Your task to perform on an android device: Show me popular games on the Play Store Image 0: 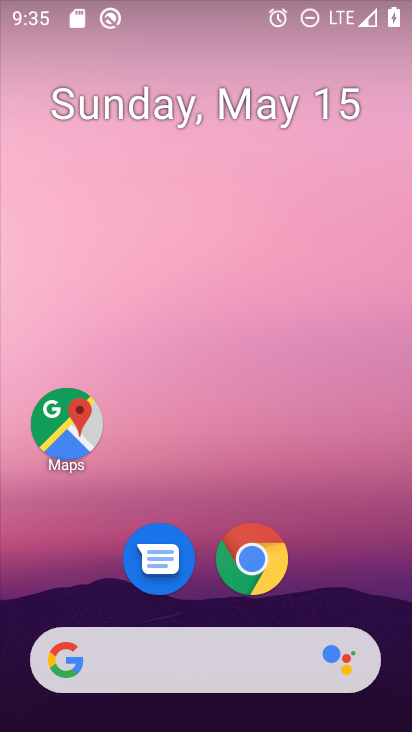
Step 0: drag from (323, 573) to (334, 115)
Your task to perform on an android device: Show me popular games on the Play Store Image 1: 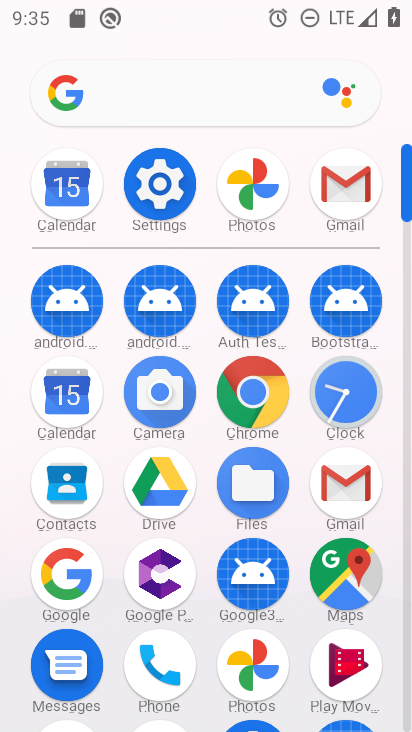
Step 1: click (406, 715)
Your task to perform on an android device: Show me popular games on the Play Store Image 2: 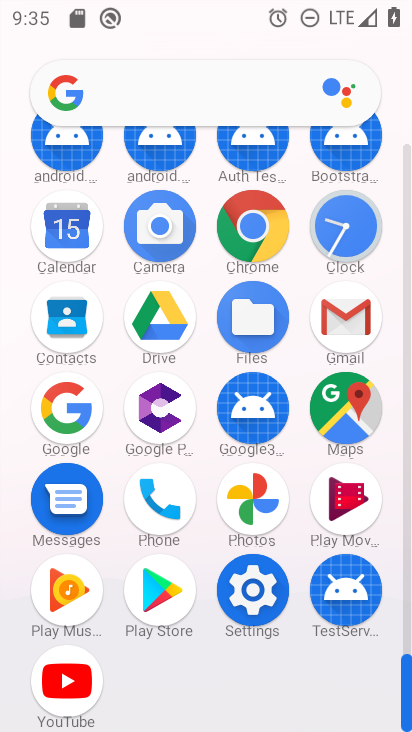
Step 2: click (161, 585)
Your task to perform on an android device: Show me popular games on the Play Store Image 3: 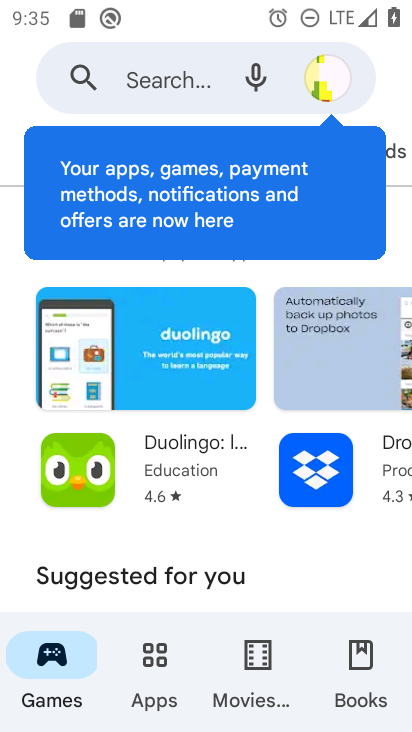
Step 3: click (165, 74)
Your task to perform on an android device: Show me popular games on the Play Store Image 4: 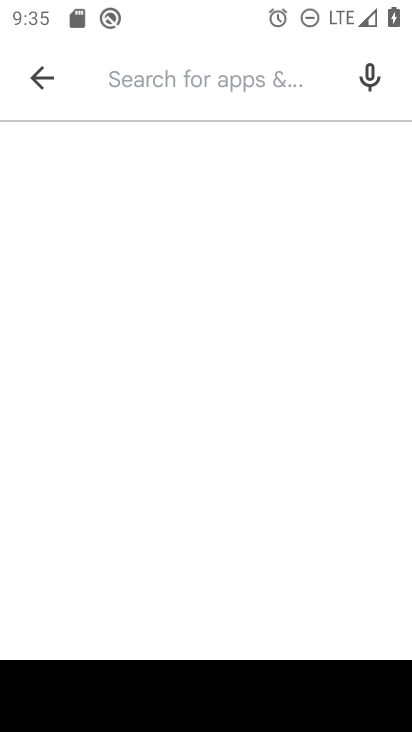
Step 4: click (41, 90)
Your task to perform on an android device: Show me popular games on the Play Store Image 5: 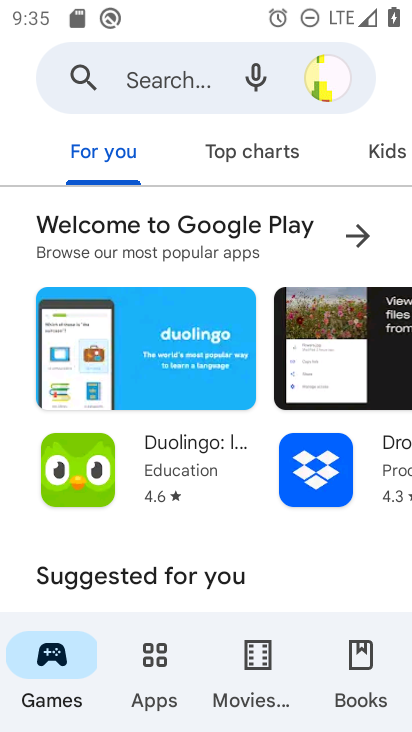
Step 5: click (224, 172)
Your task to perform on an android device: Show me popular games on the Play Store Image 6: 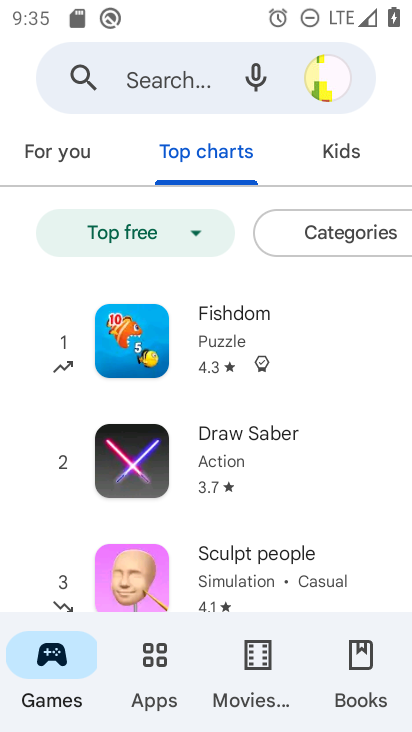
Step 6: click (198, 240)
Your task to perform on an android device: Show me popular games on the Play Store Image 7: 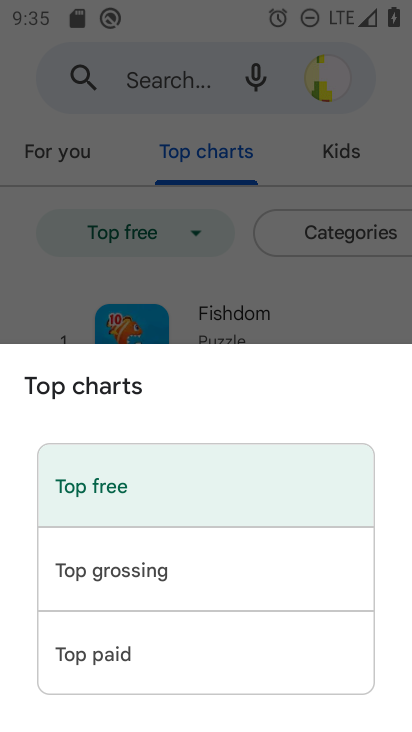
Step 7: click (307, 265)
Your task to perform on an android device: Show me popular games on the Play Store Image 8: 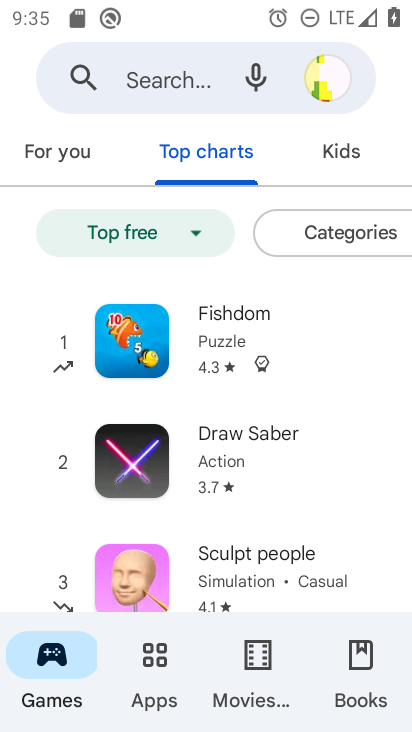
Step 8: task complete